Your task to perform on an android device: toggle improve location accuracy Image 0: 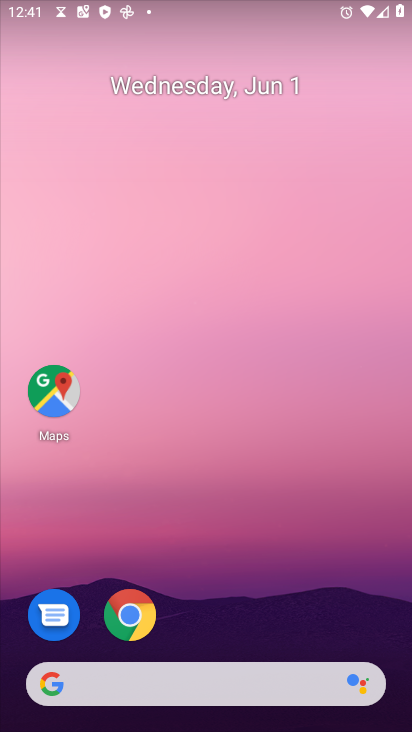
Step 0: drag from (261, 490) to (221, 2)
Your task to perform on an android device: toggle improve location accuracy Image 1: 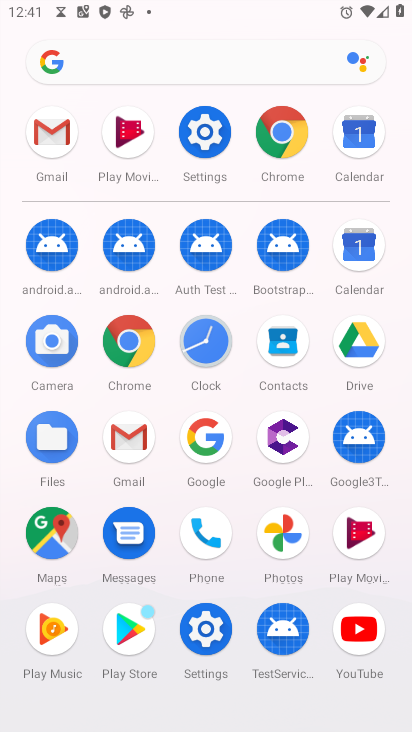
Step 1: click (216, 126)
Your task to perform on an android device: toggle improve location accuracy Image 2: 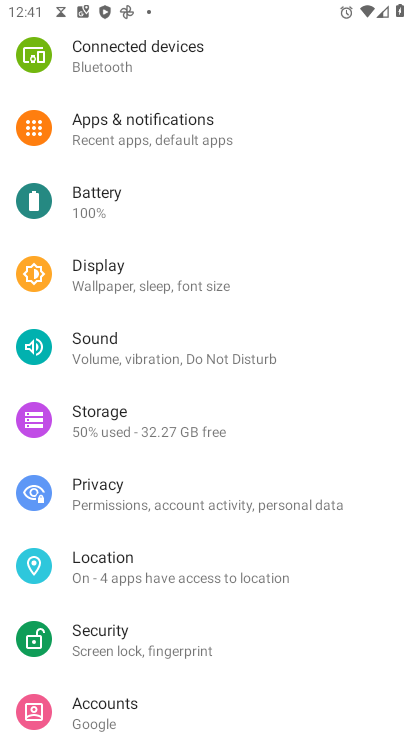
Step 2: click (130, 577)
Your task to perform on an android device: toggle improve location accuracy Image 3: 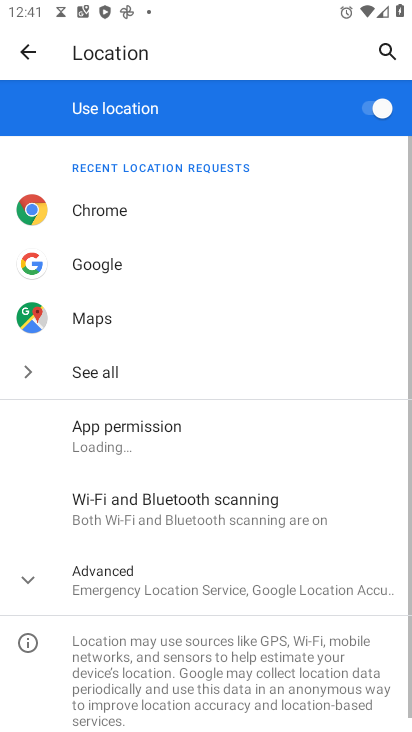
Step 3: drag from (216, 657) to (270, 236)
Your task to perform on an android device: toggle improve location accuracy Image 4: 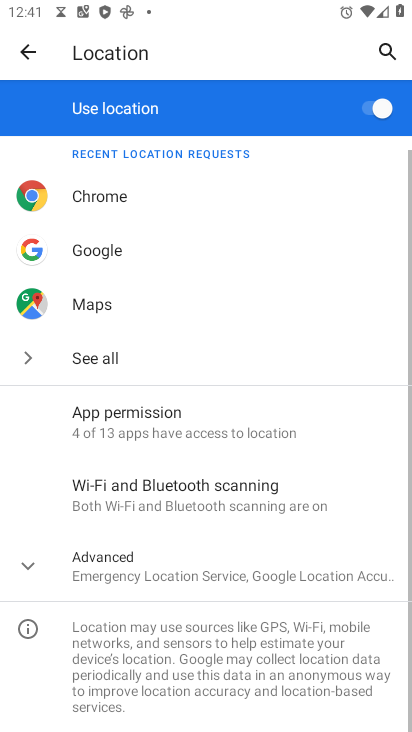
Step 4: click (182, 550)
Your task to perform on an android device: toggle improve location accuracy Image 5: 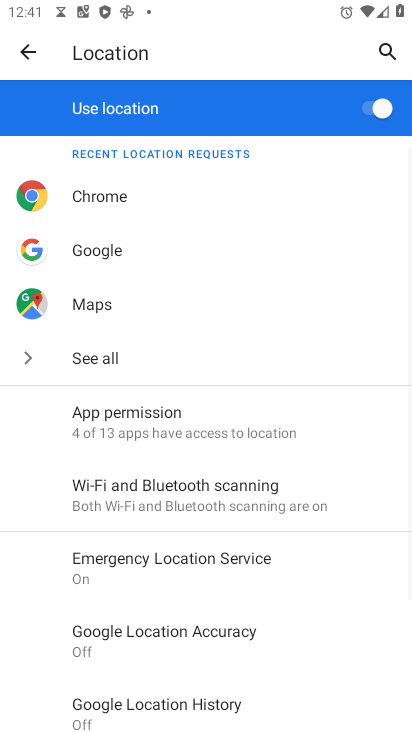
Step 5: click (206, 613)
Your task to perform on an android device: toggle improve location accuracy Image 6: 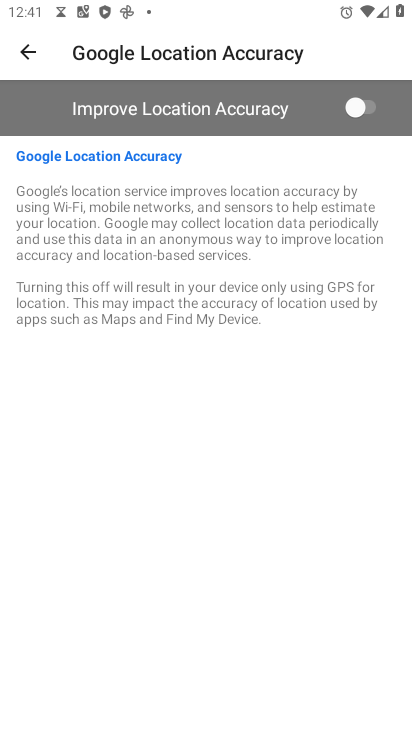
Step 6: click (355, 118)
Your task to perform on an android device: toggle improve location accuracy Image 7: 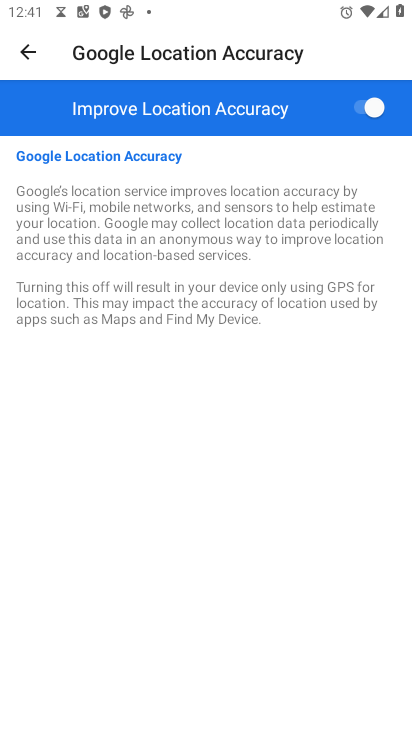
Step 7: task complete